Your task to perform on an android device: turn on wifi Image 0: 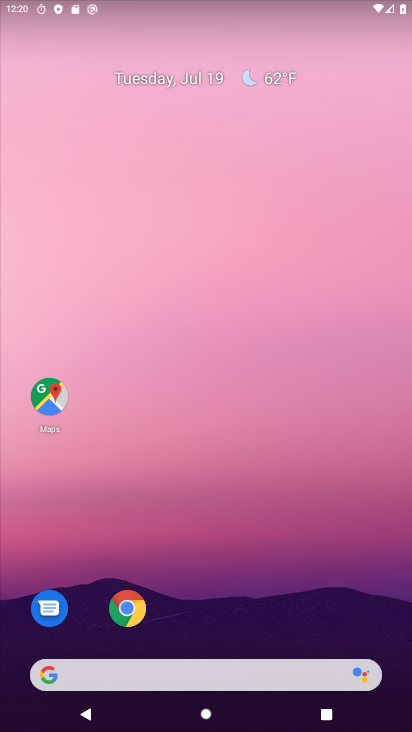
Step 0: press home button
Your task to perform on an android device: turn on wifi Image 1: 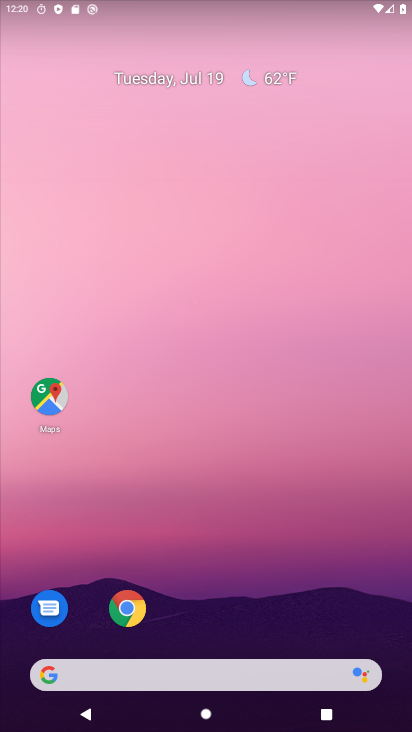
Step 1: drag from (223, 638) to (242, 14)
Your task to perform on an android device: turn on wifi Image 2: 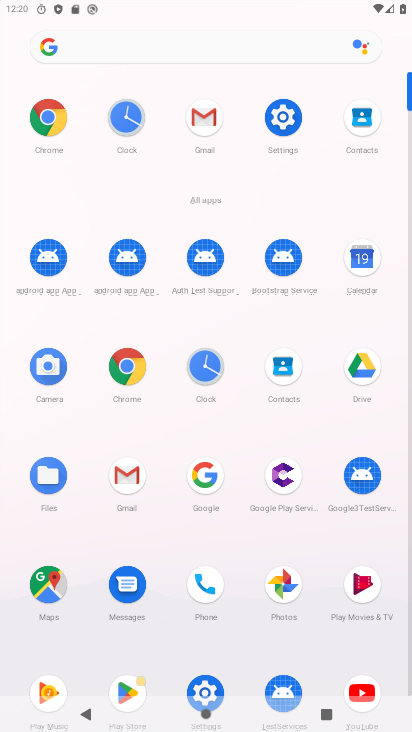
Step 2: drag from (169, 0) to (192, 438)
Your task to perform on an android device: turn on wifi Image 3: 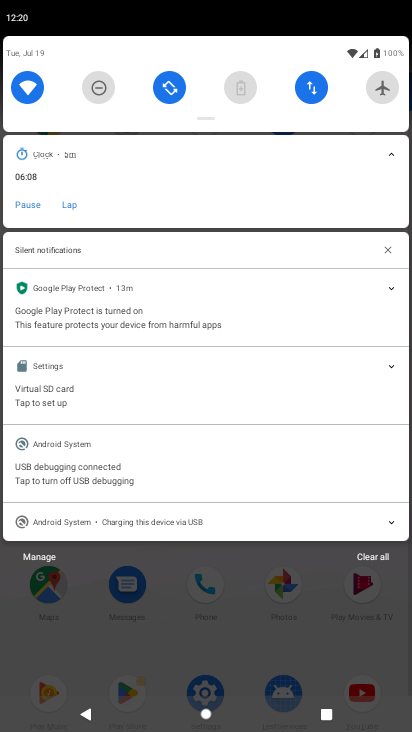
Step 3: click (66, 203)
Your task to perform on an android device: turn on wifi Image 4: 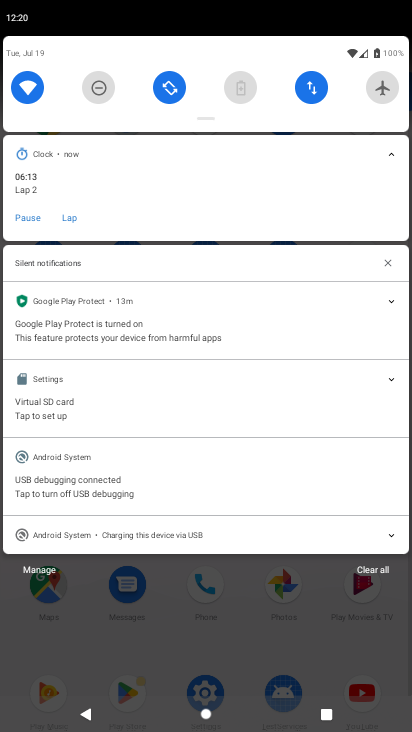
Step 4: task complete